Your task to perform on an android device: empty trash in google photos Image 0: 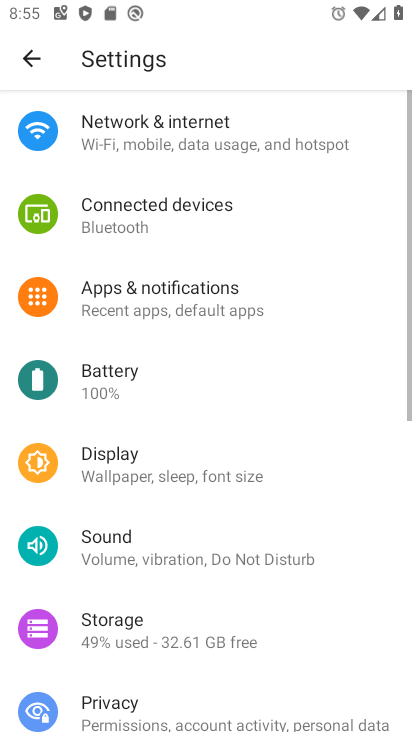
Step 0: press home button
Your task to perform on an android device: empty trash in google photos Image 1: 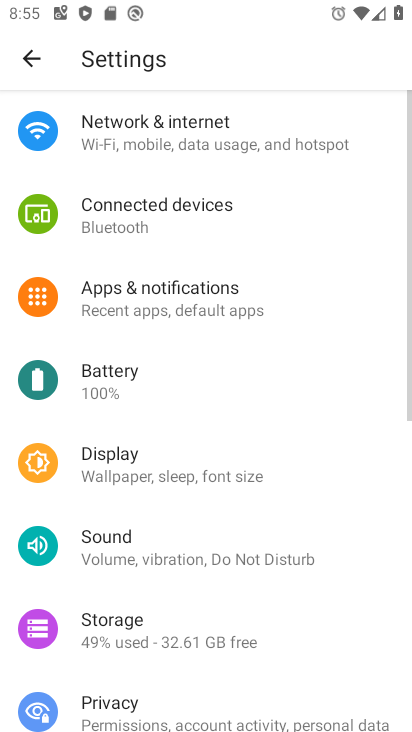
Step 1: press home button
Your task to perform on an android device: empty trash in google photos Image 2: 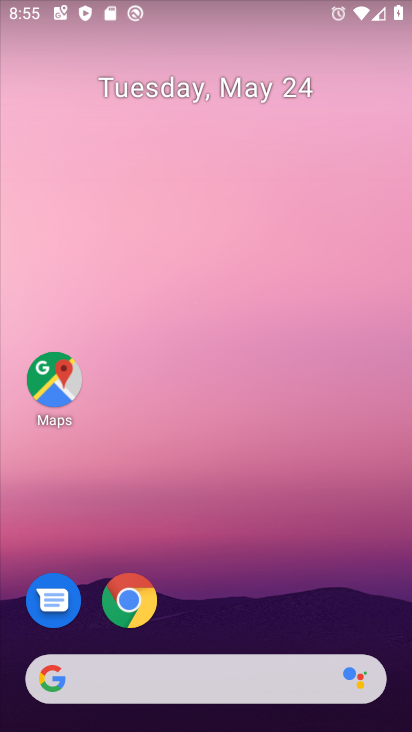
Step 2: drag from (216, 716) to (217, 120)
Your task to perform on an android device: empty trash in google photos Image 3: 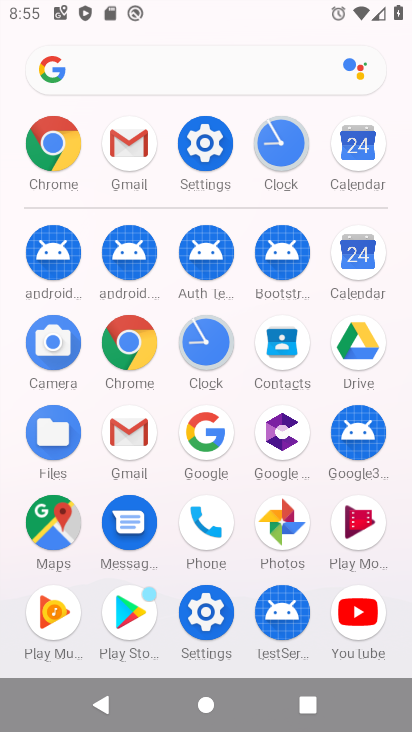
Step 3: click (282, 525)
Your task to perform on an android device: empty trash in google photos Image 4: 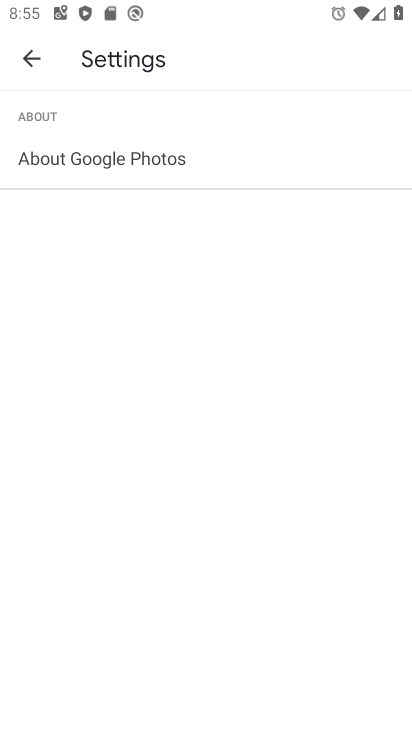
Step 4: click (35, 61)
Your task to perform on an android device: empty trash in google photos Image 5: 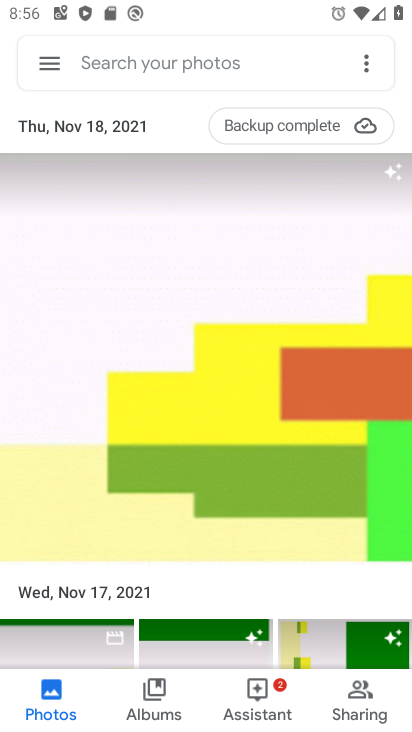
Step 5: click (51, 69)
Your task to perform on an android device: empty trash in google photos Image 6: 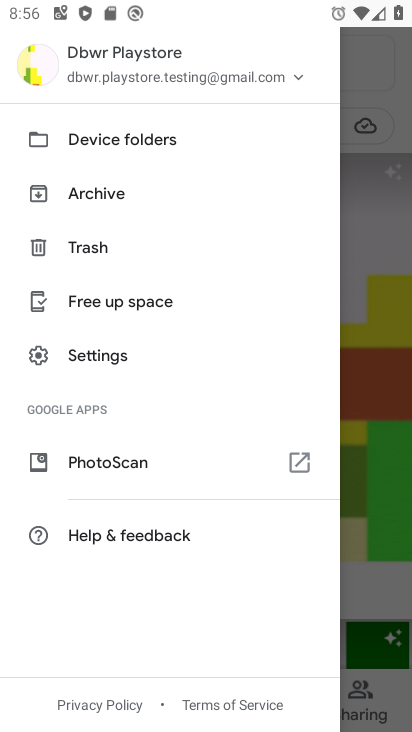
Step 6: click (101, 242)
Your task to perform on an android device: empty trash in google photos Image 7: 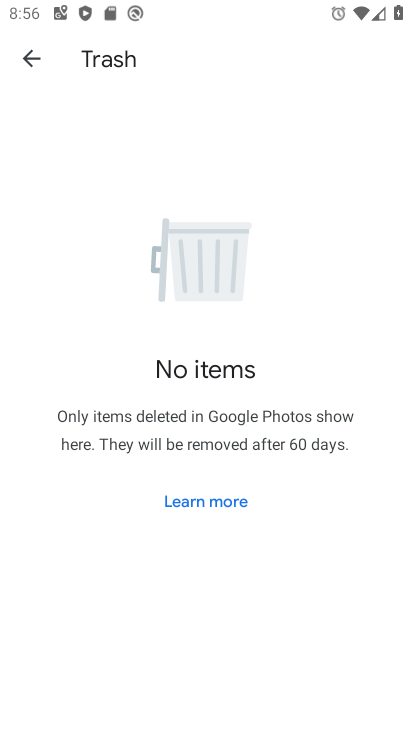
Step 7: task complete